Your task to perform on an android device: Open settings on Google Maps Image 0: 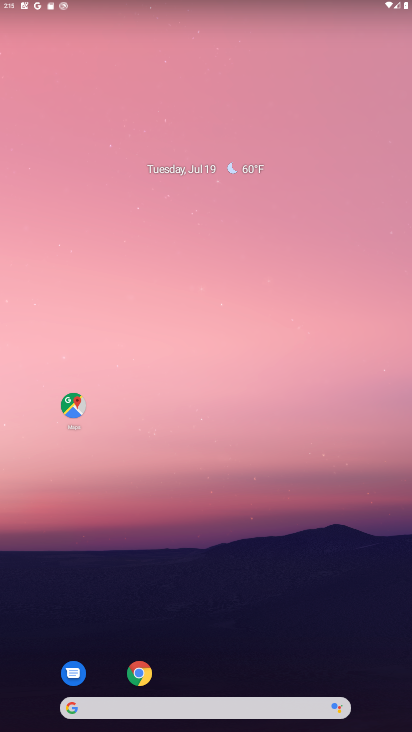
Step 0: drag from (0, 0) to (249, 117)
Your task to perform on an android device: Open settings on Google Maps Image 1: 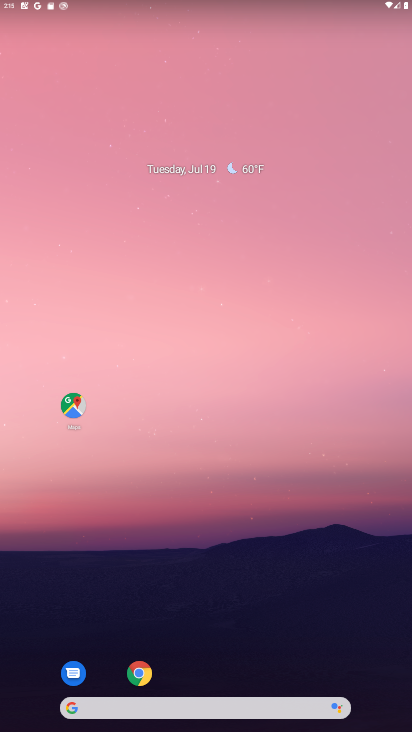
Step 1: click (71, 407)
Your task to perform on an android device: Open settings on Google Maps Image 2: 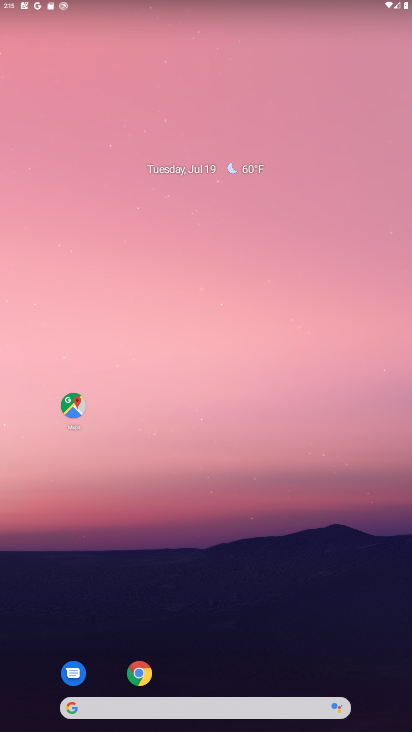
Step 2: click (71, 407)
Your task to perform on an android device: Open settings on Google Maps Image 3: 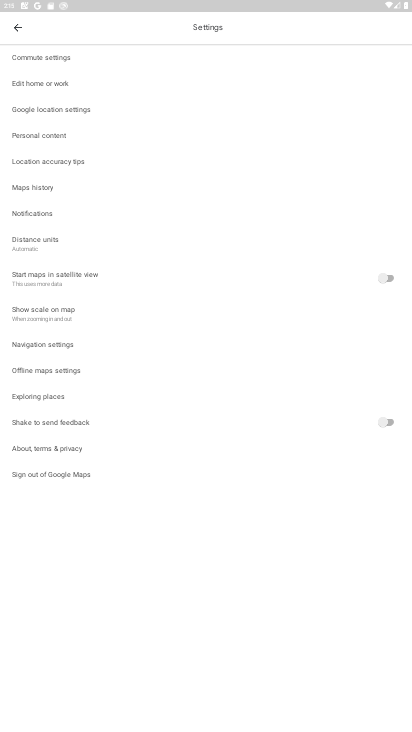
Step 3: task complete